Your task to perform on an android device: Set the phone to "Do not disturb". Image 0: 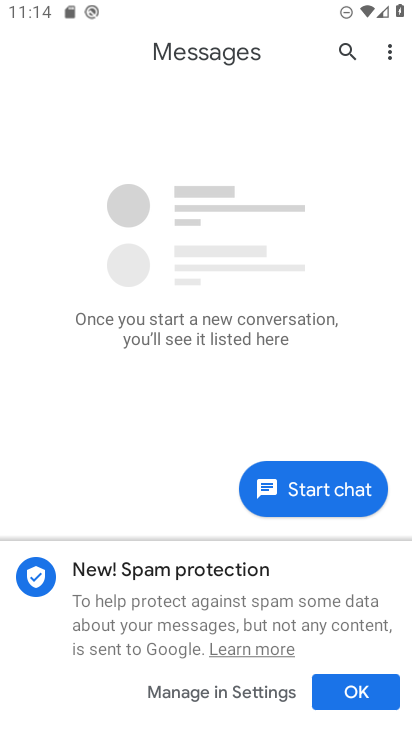
Step 0: press home button
Your task to perform on an android device: Set the phone to "Do not disturb". Image 1: 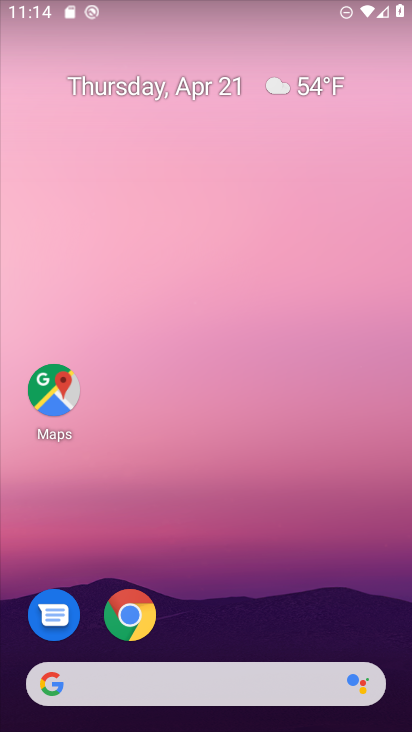
Step 1: drag from (308, 627) to (299, 173)
Your task to perform on an android device: Set the phone to "Do not disturb". Image 2: 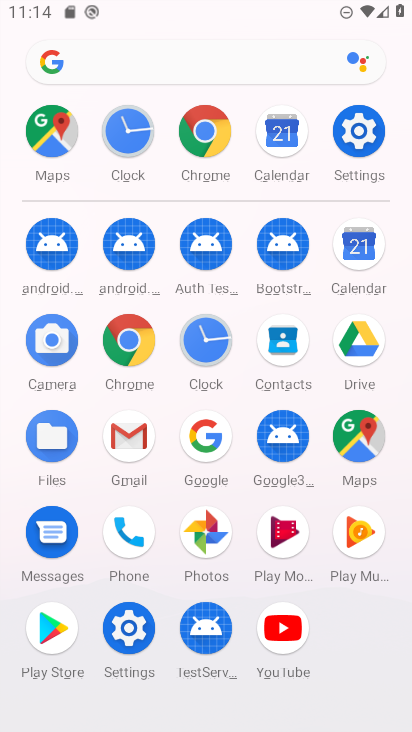
Step 2: click (365, 124)
Your task to perform on an android device: Set the phone to "Do not disturb". Image 3: 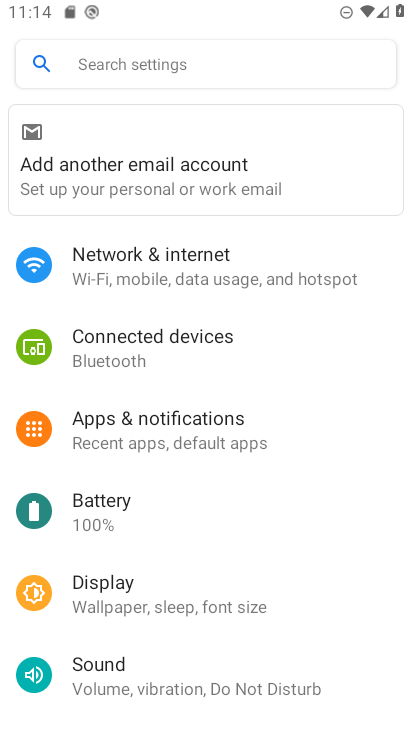
Step 3: click (210, 683)
Your task to perform on an android device: Set the phone to "Do not disturb". Image 4: 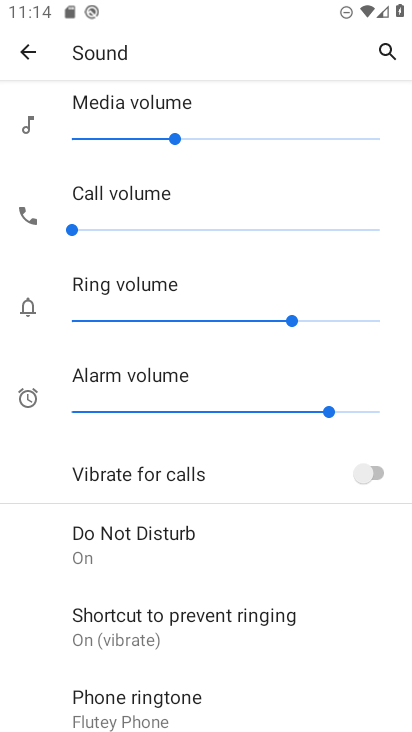
Step 4: click (172, 554)
Your task to perform on an android device: Set the phone to "Do not disturb". Image 5: 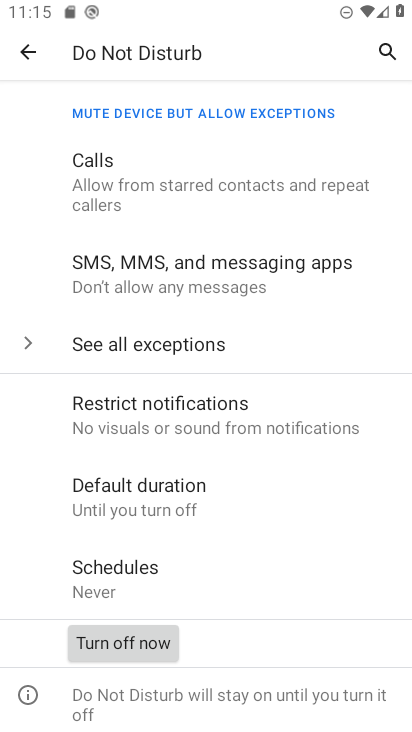
Step 5: task complete